Your task to perform on an android device: snooze an email in the gmail app Image 0: 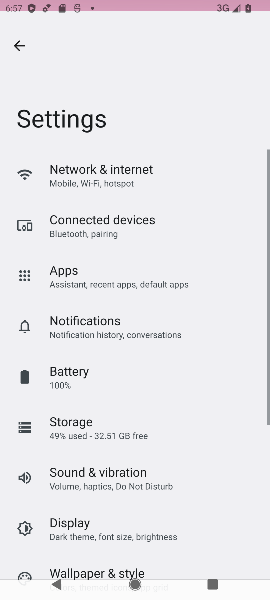
Step 0: press home button
Your task to perform on an android device: snooze an email in the gmail app Image 1: 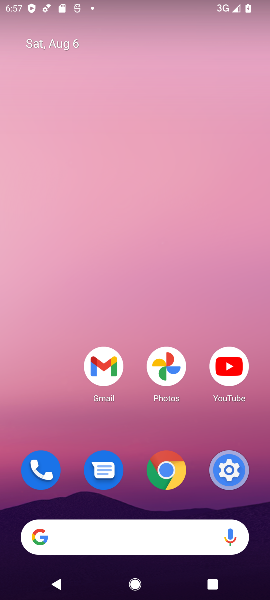
Step 1: drag from (163, 493) to (187, 74)
Your task to perform on an android device: snooze an email in the gmail app Image 2: 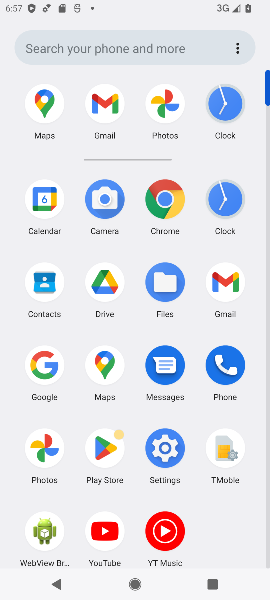
Step 2: click (106, 101)
Your task to perform on an android device: snooze an email in the gmail app Image 3: 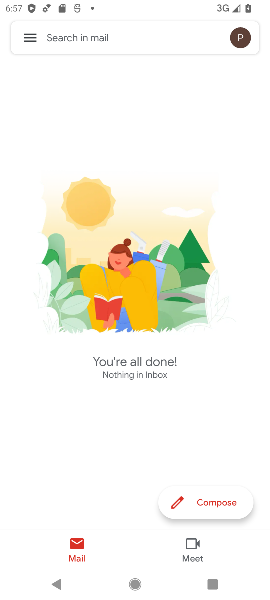
Step 3: click (24, 33)
Your task to perform on an android device: snooze an email in the gmail app Image 4: 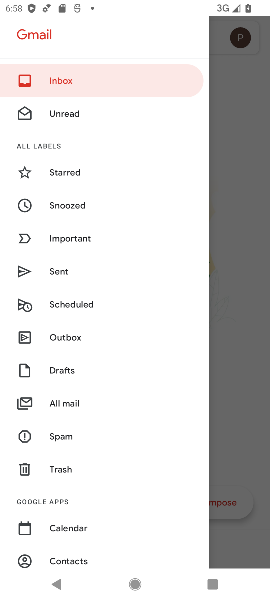
Step 4: click (247, 205)
Your task to perform on an android device: snooze an email in the gmail app Image 5: 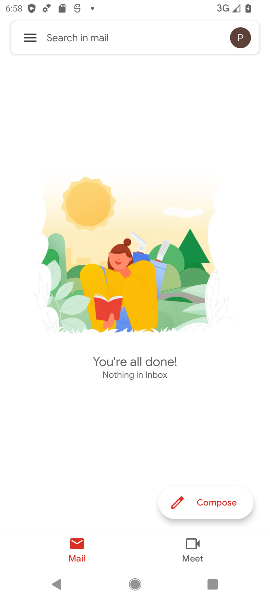
Step 5: task complete